Your task to perform on an android device: turn on location history Image 0: 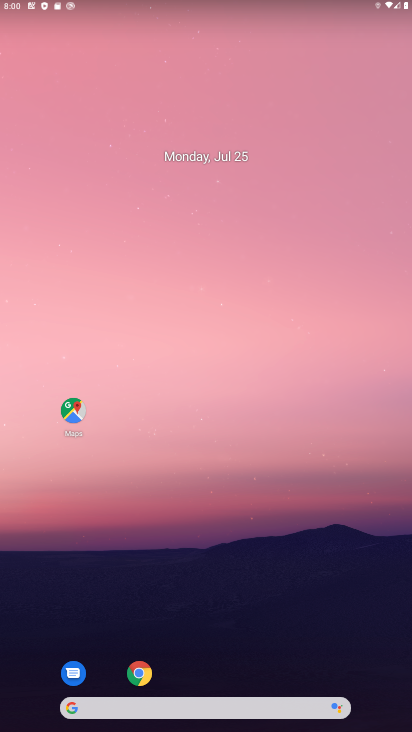
Step 0: drag from (298, 716) to (270, 248)
Your task to perform on an android device: turn on location history Image 1: 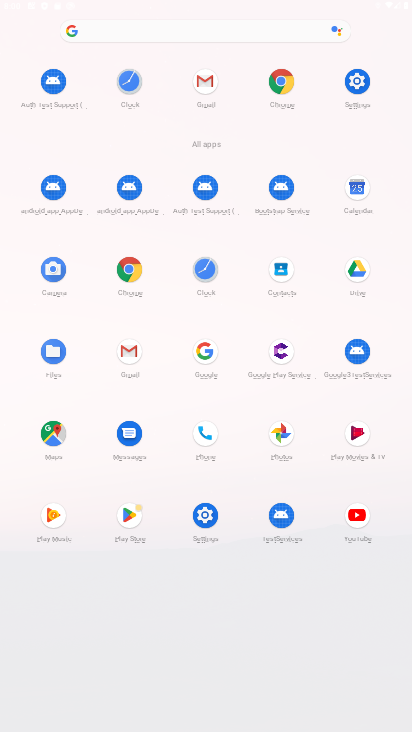
Step 1: click (201, 510)
Your task to perform on an android device: turn on location history Image 2: 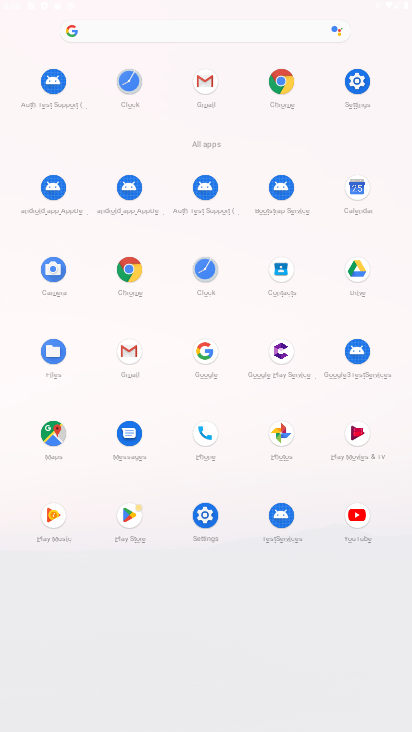
Step 2: click (203, 508)
Your task to perform on an android device: turn on location history Image 3: 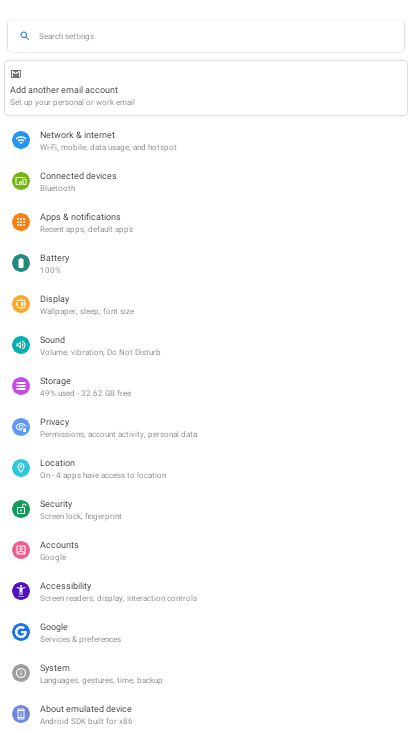
Step 3: click (55, 462)
Your task to perform on an android device: turn on location history Image 4: 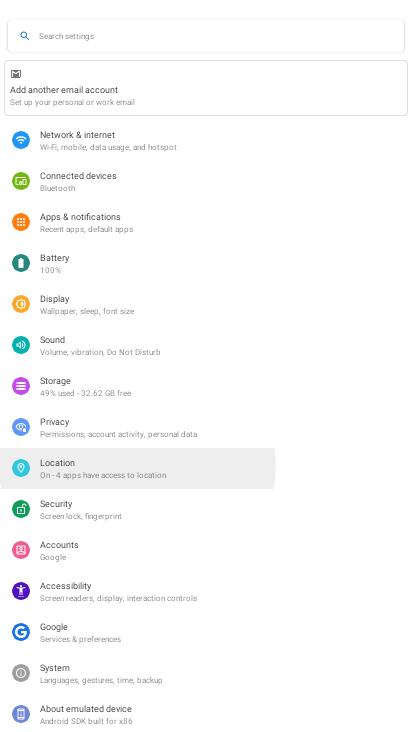
Step 4: click (58, 454)
Your task to perform on an android device: turn on location history Image 5: 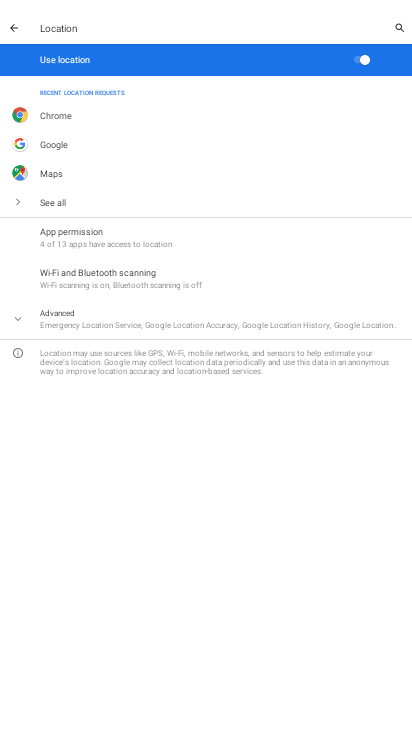
Step 5: click (64, 323)
Your task to perform on an android device: turn on location history Image 6: 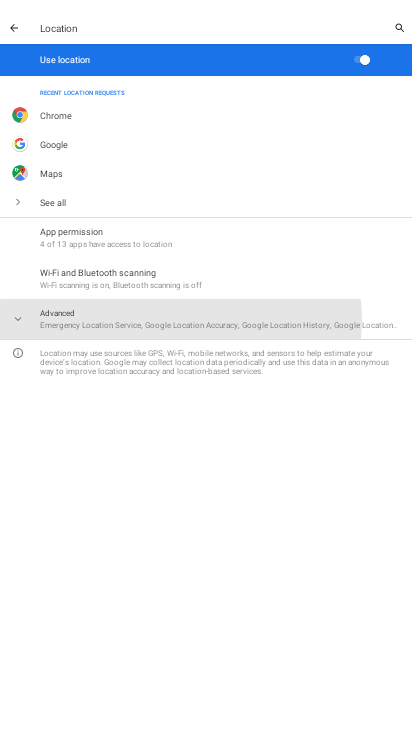
Step 6: click (64, 323)
Your task to perform on an android device: turn on location history Image 7: 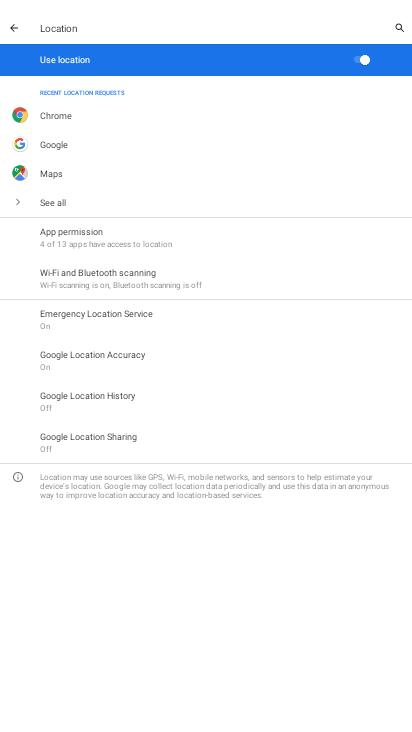
Step 7: click (116, 353)
Your task to perform on an android device: turn on location history Image 8: 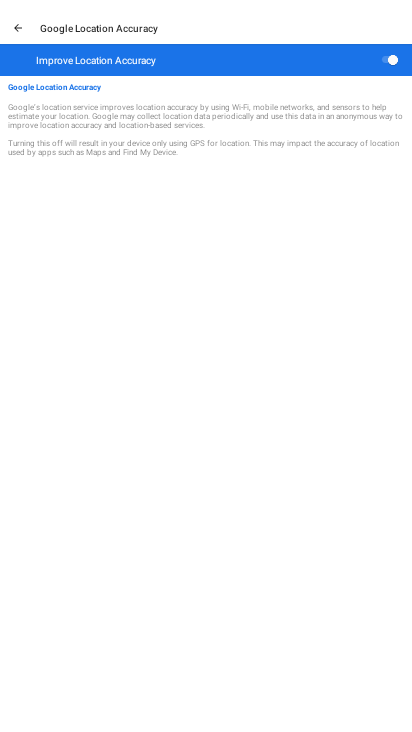
Step 8: press back button
Your task to perform on an android device: turn on location history Image 9: 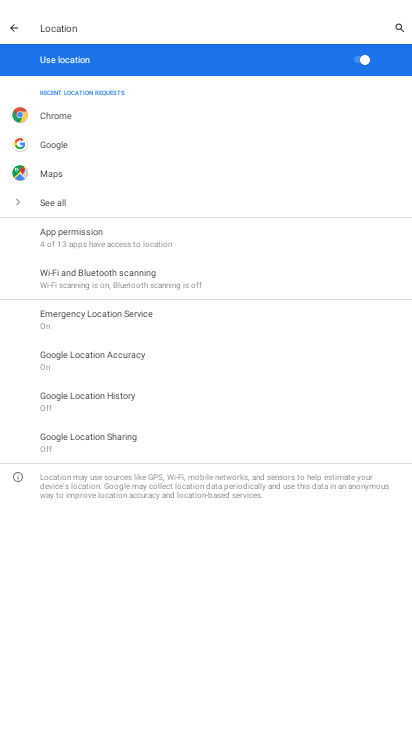
Step 9: click (122, 390)
Your task to perform on an android device: turn on location history Image 10: 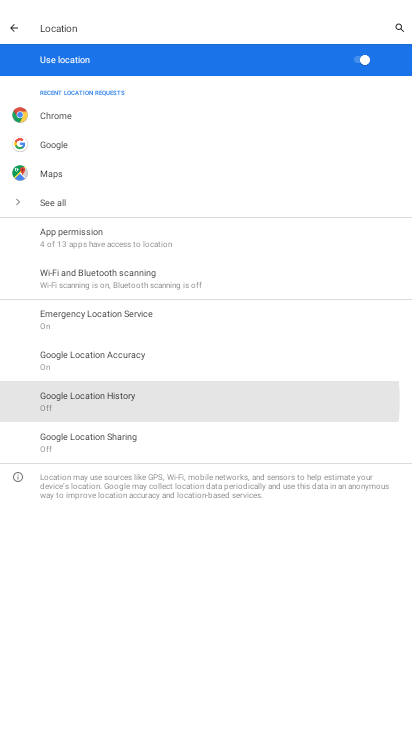
Step 10: click (122, 390)
Your task to perform on an android device: turn on location history Image 11: 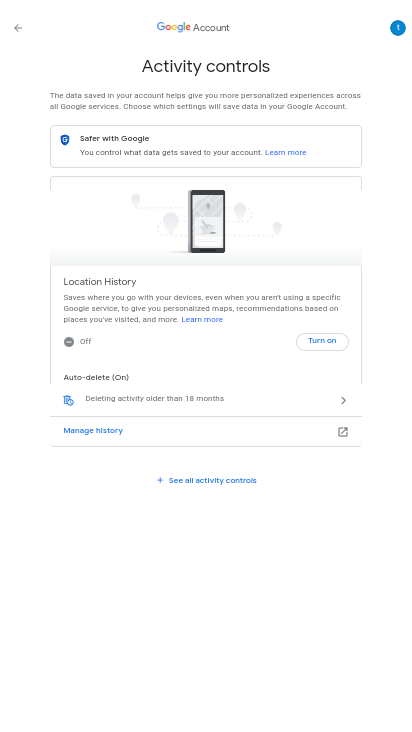
Step 11: task complete